Your task to perform on an android device: change the upload size in google photos Image 0: 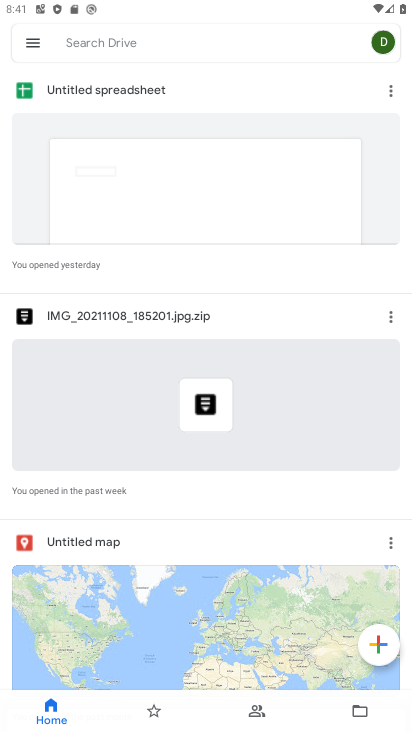
Step 0: press home button
Your task to perform on an android device: change the upload size in google photos Image 1: 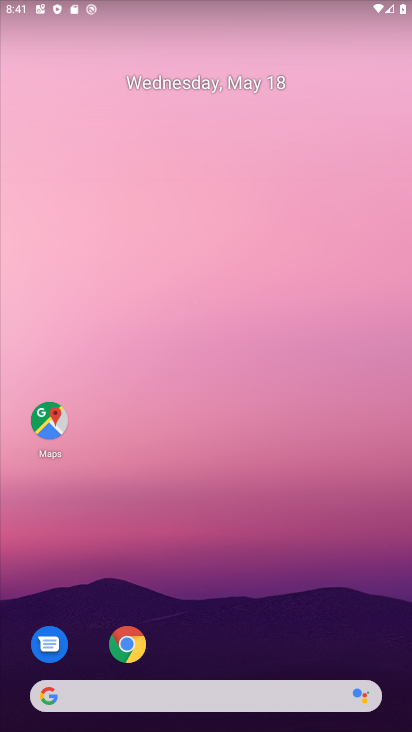
Step 1: drag from (164, 602) to (163, 35)
Your task to perform on an android device: change the upload size in google photos Image 2: 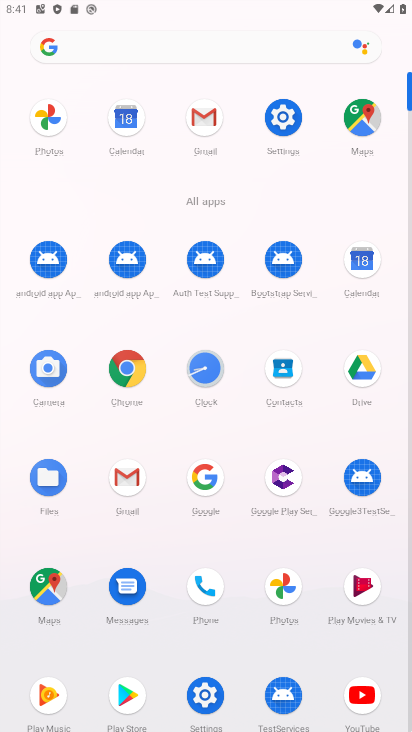
Step 2: click (43, 124)
Your task to perform on an android device: change the upload size in google photos Image 3: 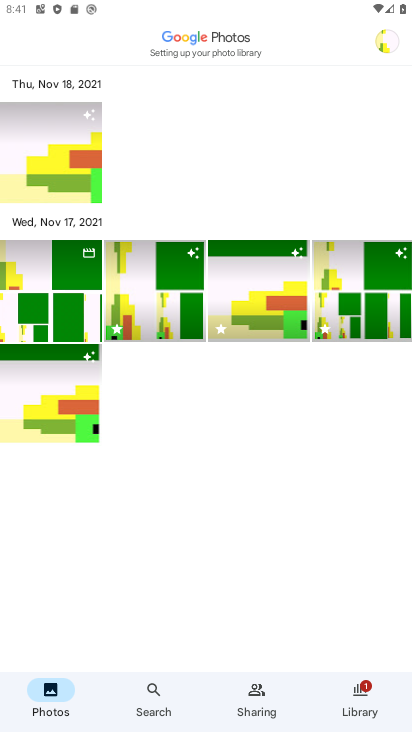
Step 3: click (24, 42)
Your task to perform on an android device: change the upload size in google photos Image 4: 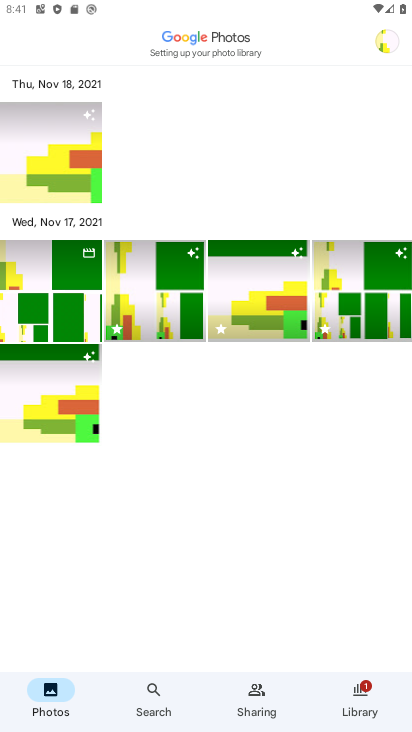
Step 4: click (24, 42)
Your task to perform on an android device: change the upload size in google photos Image 5: 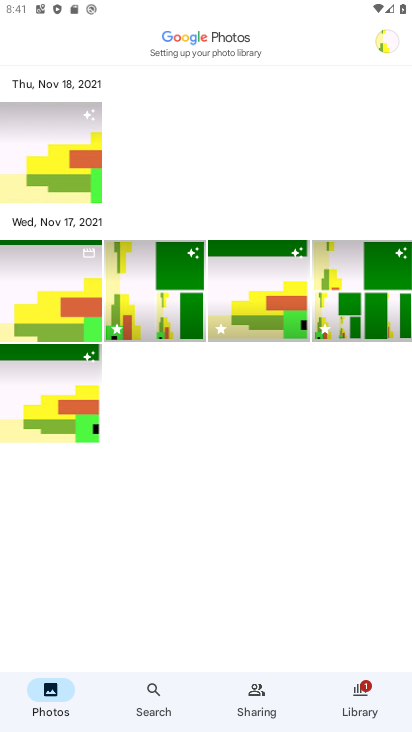
Step 5: click (389, 37)
Your task to perform on an android device: change the upload size in google photos Image 6: 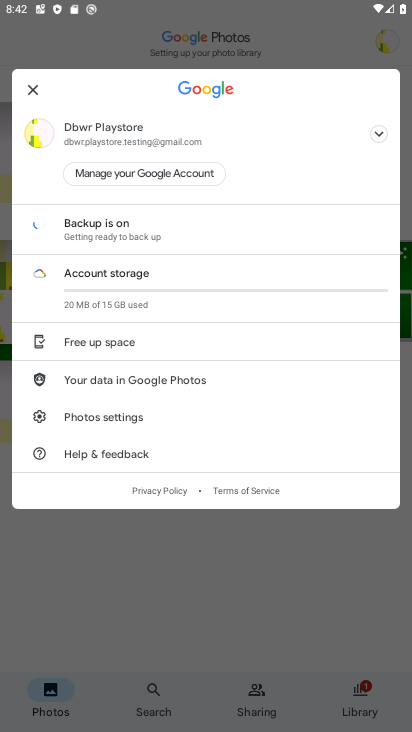
Step 6: click (88, 415)
Your task to perform on an android device: change the upload size in google photos Image 7: 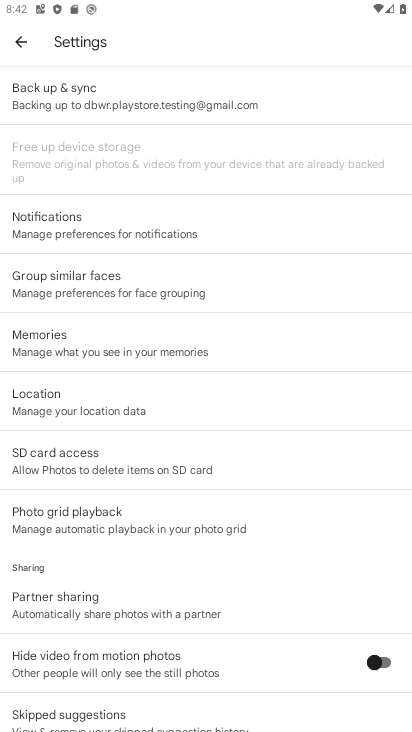
Step 7: click (122, 103)
Your task to perform on an android device: change the upload size in google photos Image 8: 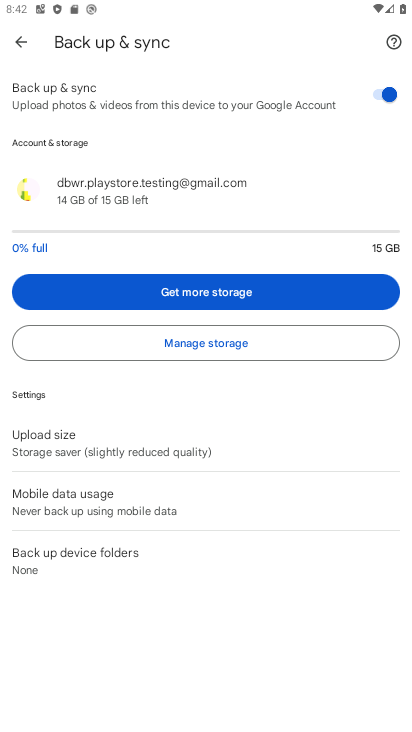
Step 8: click (82, 445)
Your task to perform on an android device: change the upload size in google photos Image 9: 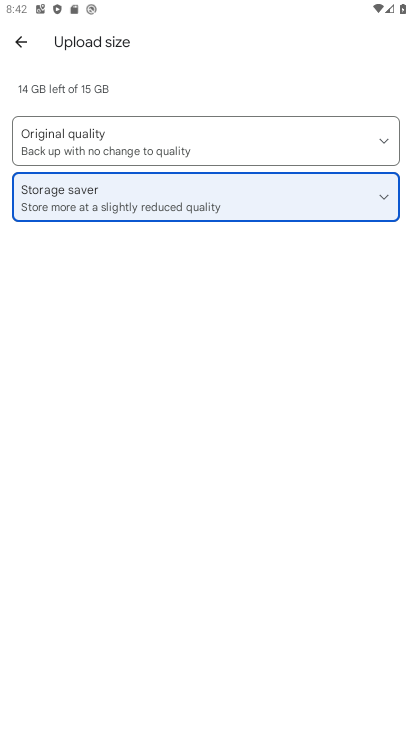
Step 9: click (110, 146)
Your task to perform on an android device: change the upload size in google photos Image 10: 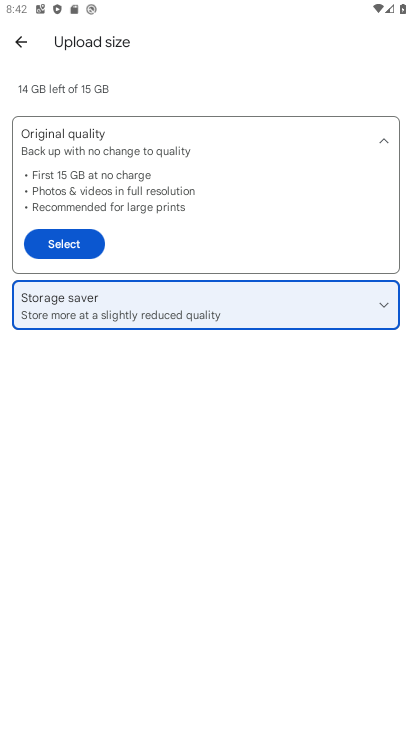
Step 10: click (59, 239)
Your task to perform on an android device: change the upload size in google photos Image 11: 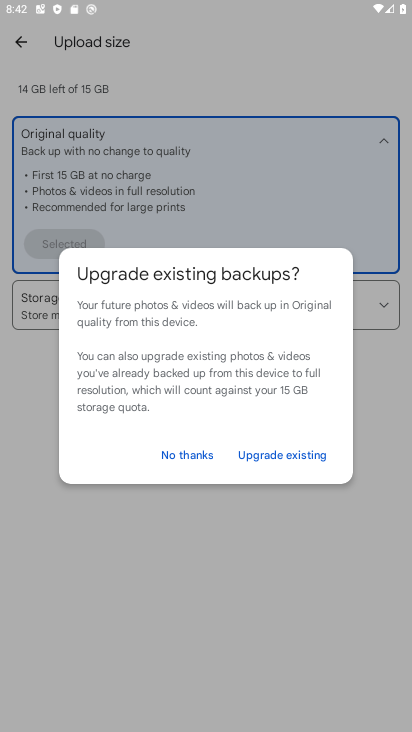
Step 11: click (198, 459)
Your task to perform on an android device: change the upload size in google photos Image 12: 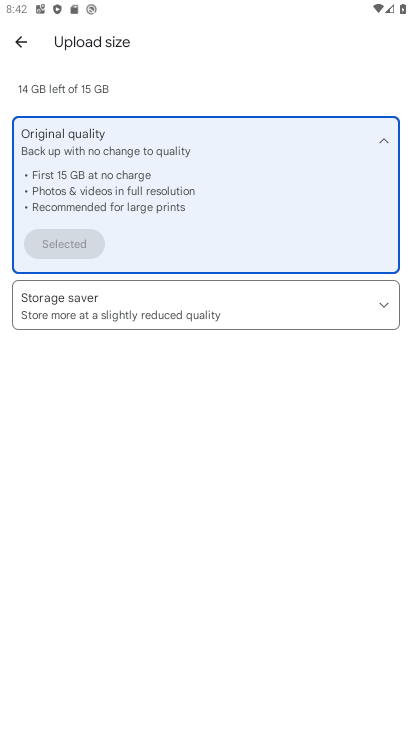
Step 12: task complete